Your task to perform on an android device: toggle wifi Image 0: 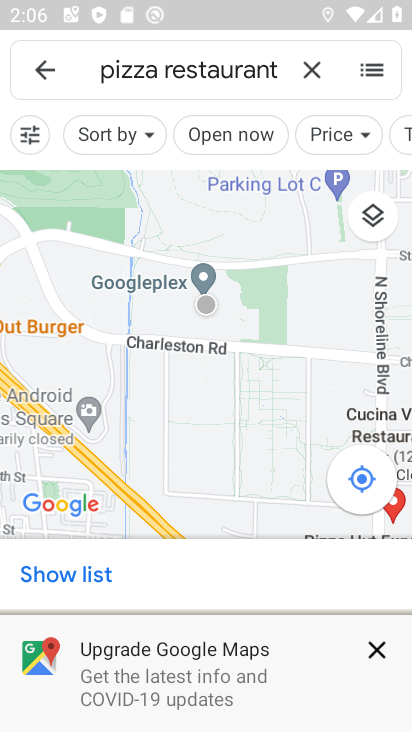
Step 0: drag from (166, 645) to (216, 211)
Your task to perform on an android device: toggle wifi Image 1: 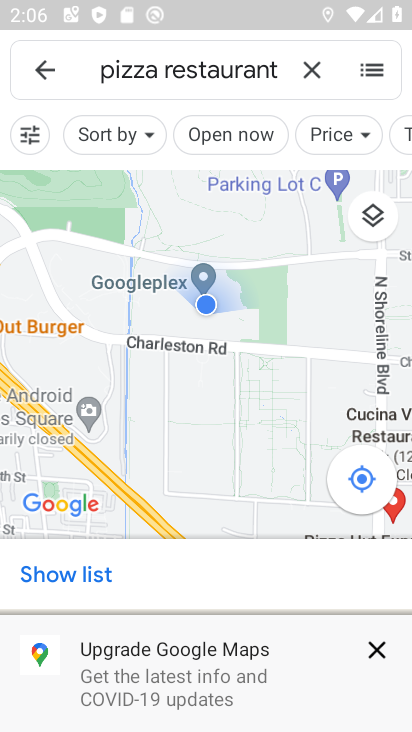
Step 1: press home button
Your task to perform on an android device: toggle wifi Image 2: 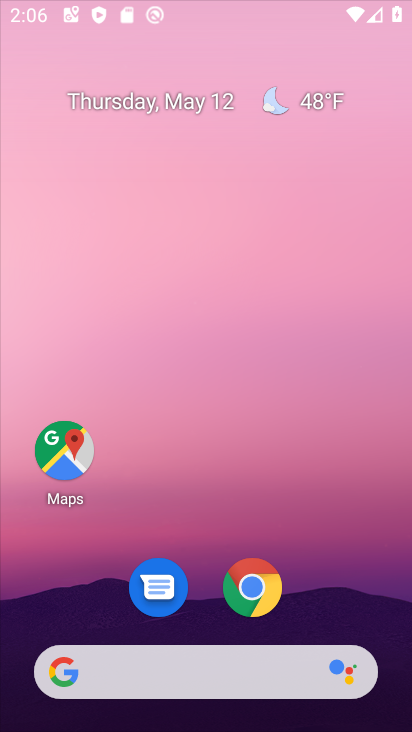
Step 2: drag from (220, 669) to (238, 224)
Your task to perform on an android device: toggle wifi Image 3: 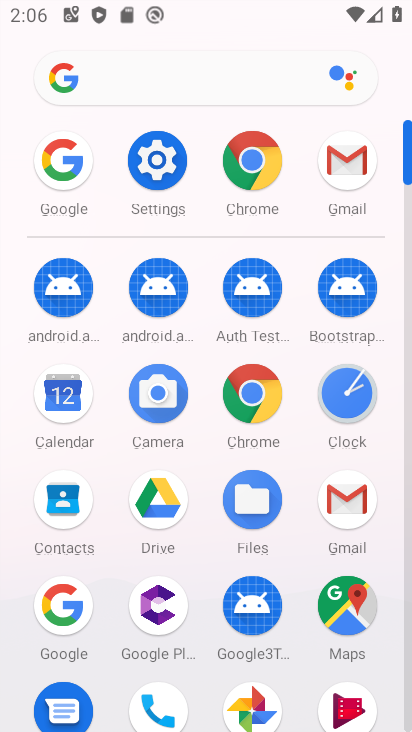
Step 3: click (175, 169)
Your task to perform on an android device: toggle wifi Image 4: 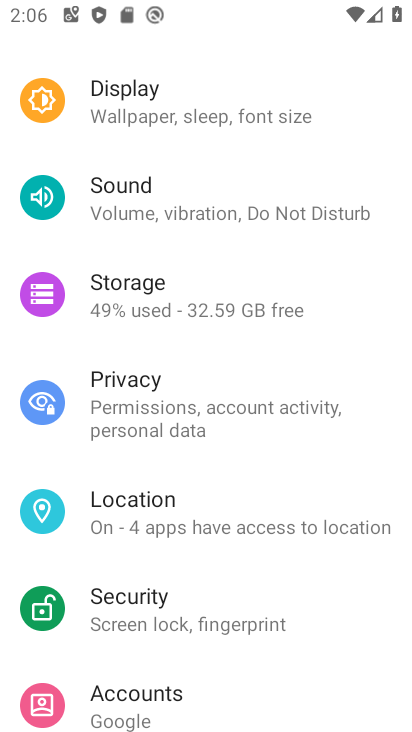
Step 4: drag from (179, 228) to (203, 564)
Your task to perform on an android device: toggle wifi Image 5: 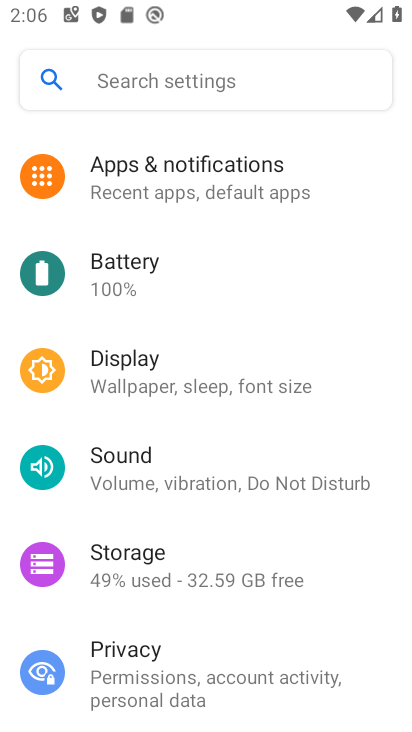
Step 5: drag from (211, 335) to (228, 659)
Your task to perform on an android device: toggle wifi Image 6: 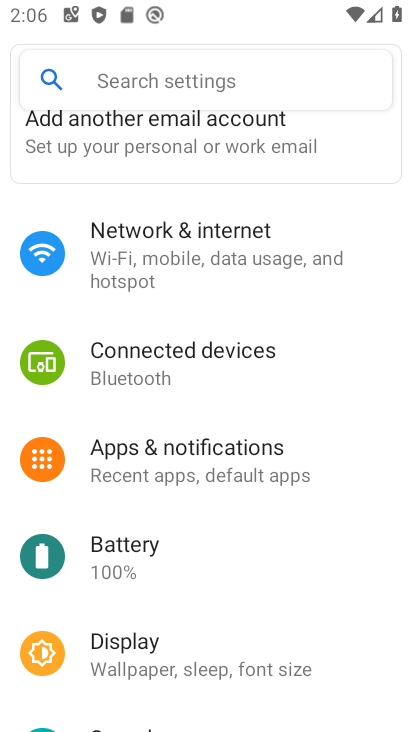
Step 6: click (257, 270)
Your task to perform on an android device: toggle wifi Image 7: 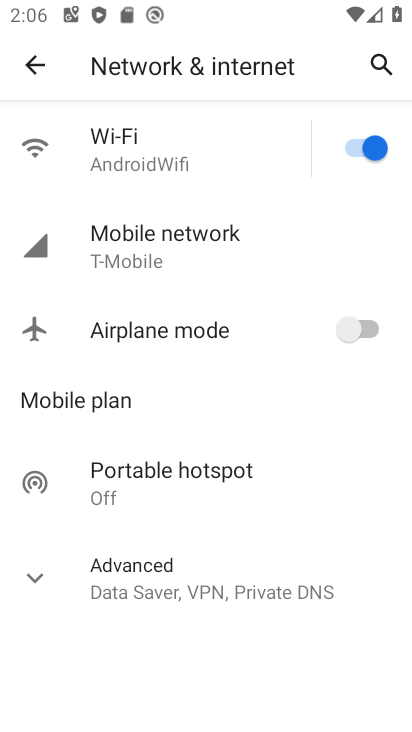
Step 7: click (343, 159)
Your task to perform on an android device: toggle wifi Image 8: 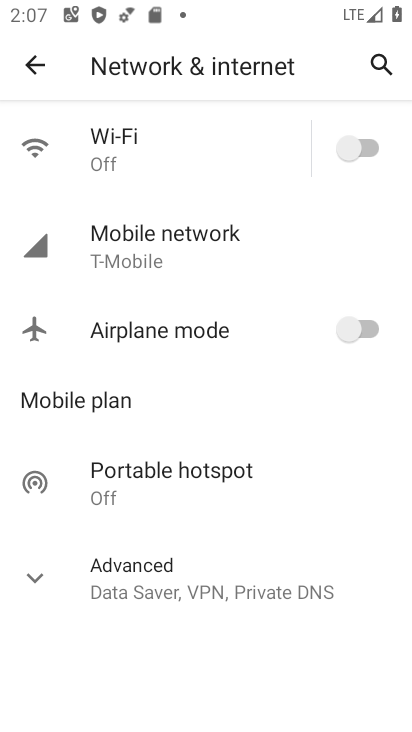
Step 8: task complete